Your task to perform on an android device: Open settings Image 0: 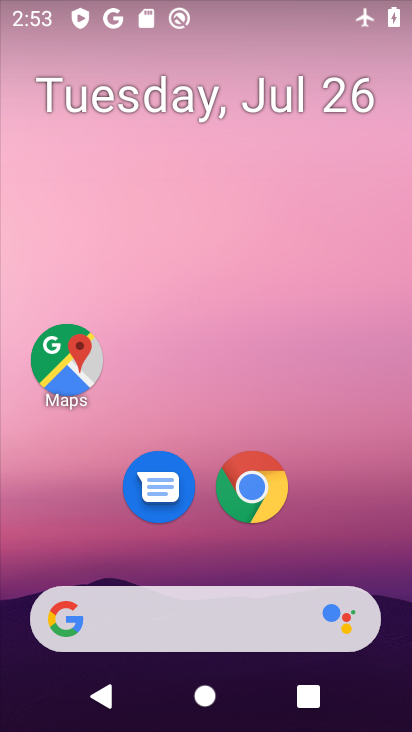
Step 0: drag from (179, 558) to (251, 17)
Your task to perform on an android device: Open settings Image 1: 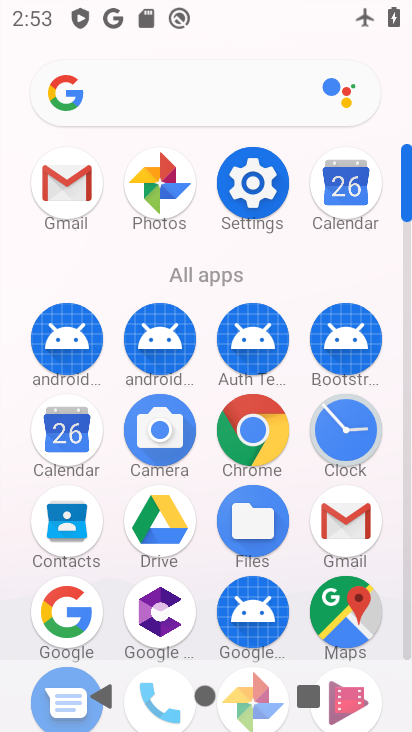
Step 1: click (260, 158)
Your task to perform on an android device: Open settings Image 2: 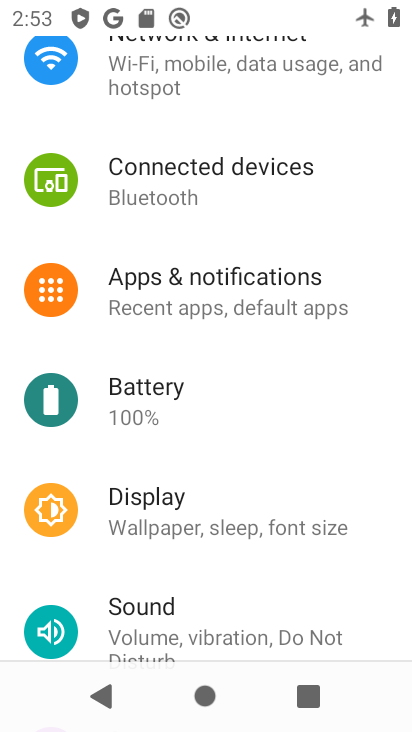
Step 2: task complete